Your task to perform on an android device: change notification settings in the gmail app Image 0: 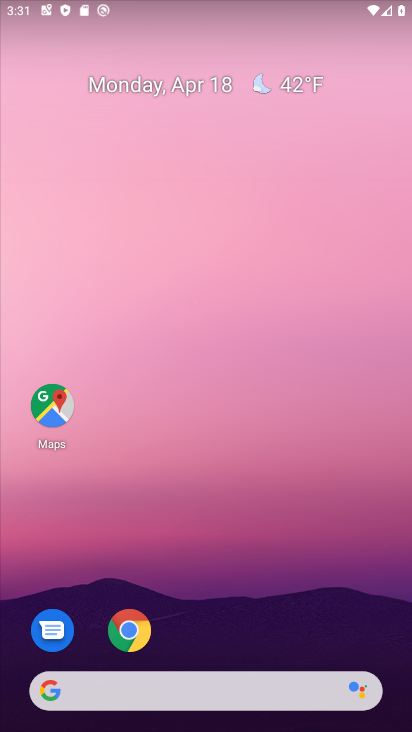
Step 0: click (142, 632)
Your task to perform on an android device: change notification settings in the gmail app Image 1: 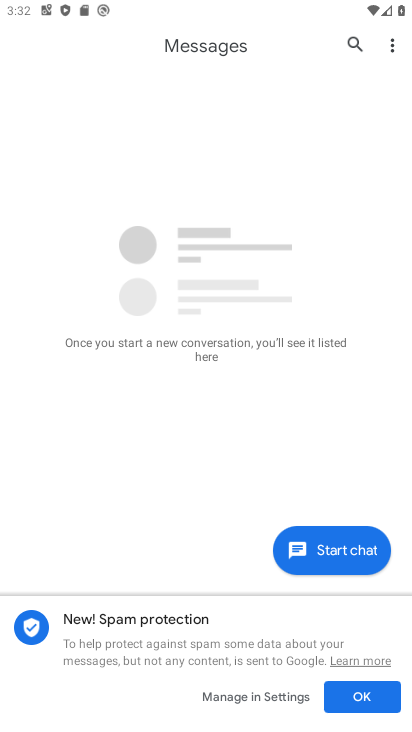
Step 1: press home button
Your task to perform on an android device: change notification settings in the gmail app Image 2: 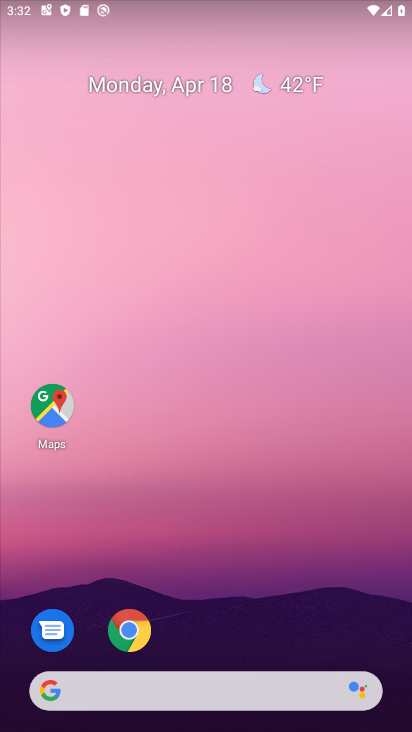
Step 2: drag from (279, 632) to (258, 65)
Your task to perform on an android device: change notification settings in the gmail app Image 3: 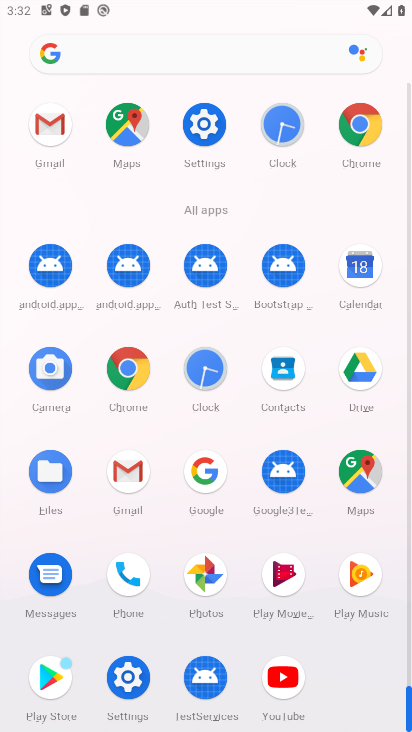
Step 3: click (114, 479)
Your task to perform on an android device: change notification settings in the gmail app Image 4: 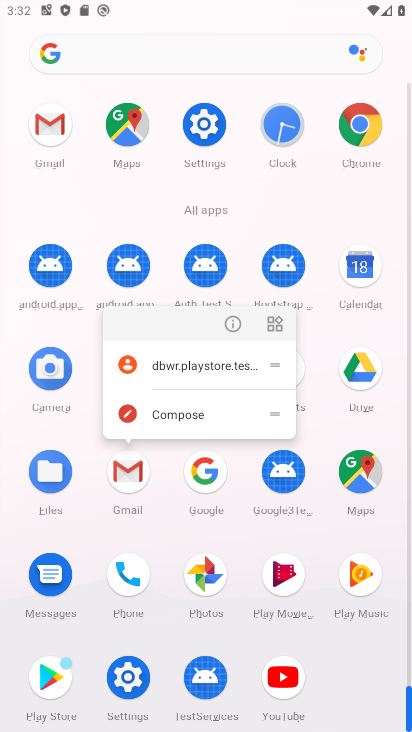
Step 4: click (236, 317)
Your task to perform on an android device: change notification settings in the gmail app Image 5: 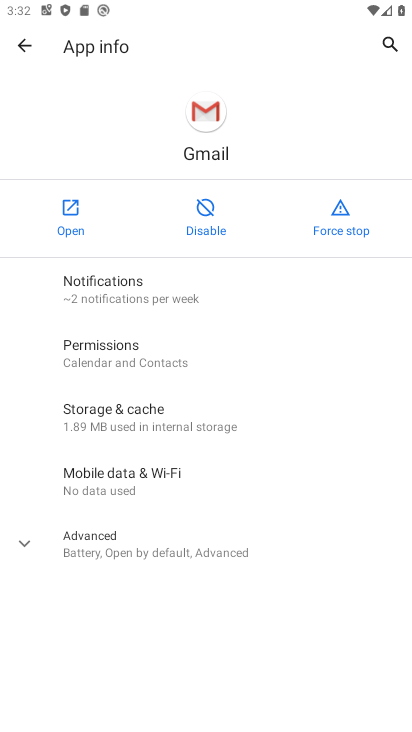
Step 5: click (182, 296)
Your task to perform on an android device: change notification settings in the gmail app Image 6: 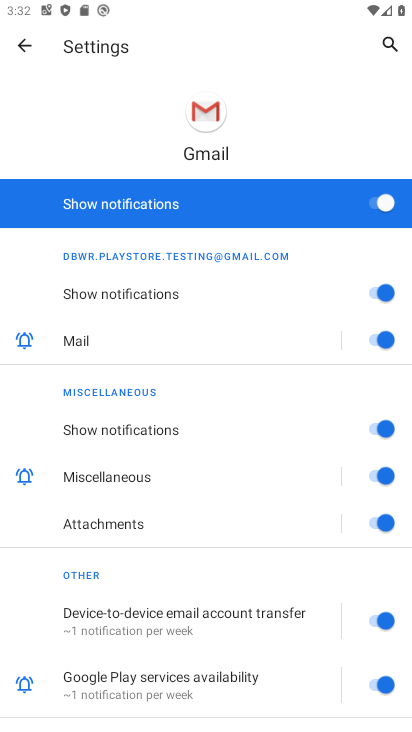
Step 6: click (385, 203)
Your task to perform on an android device: change notification settings in the gmail app Image 7: 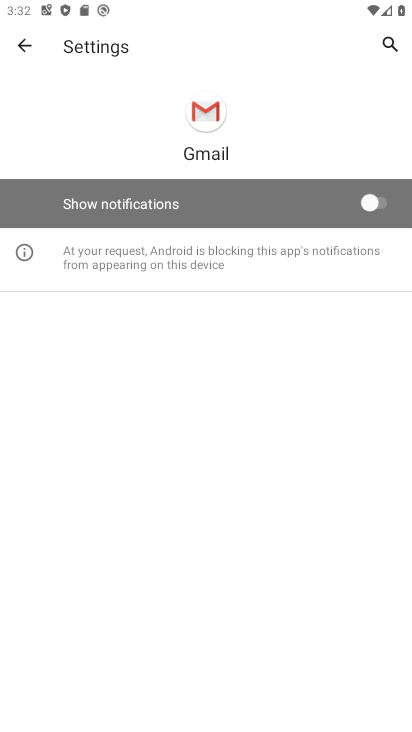
Step 7: task complete